Your task to perform on an android device: make emails show in primary in the gmail app Image 0: 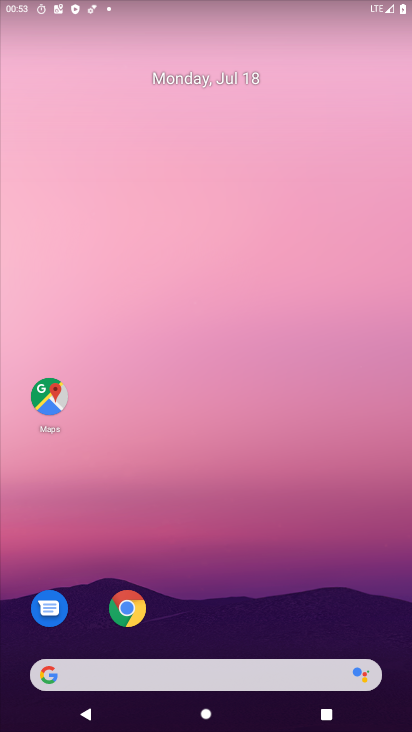
Step 0: drag from (282, 615) to (386, 25)
Your task to perform on an android device: make emails show in primary in the gmail app Image 1: 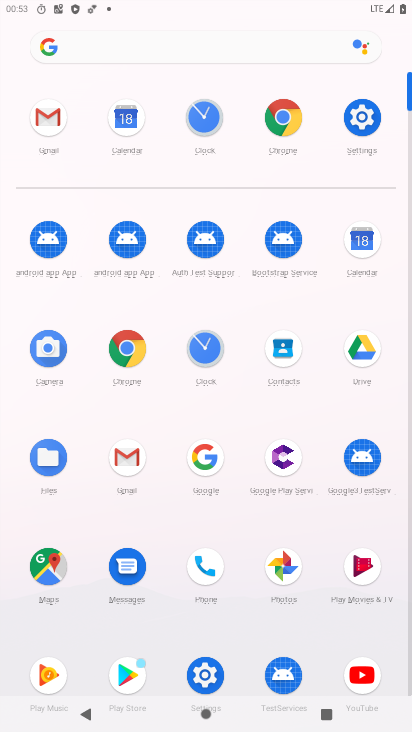
Step 1: click (50, 128)
Your task to perform on an android device: make emails show in primary in the gmail app Image 2: 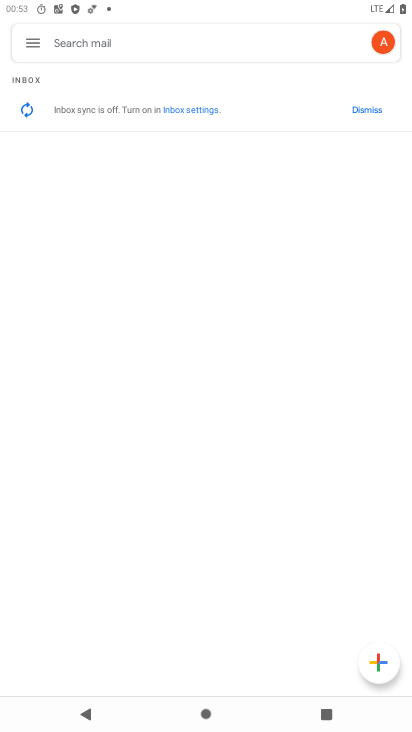
Step 2: click (33, 43)
Your task to perform on an android device: make emails show in primary in the gmail app Image 3: 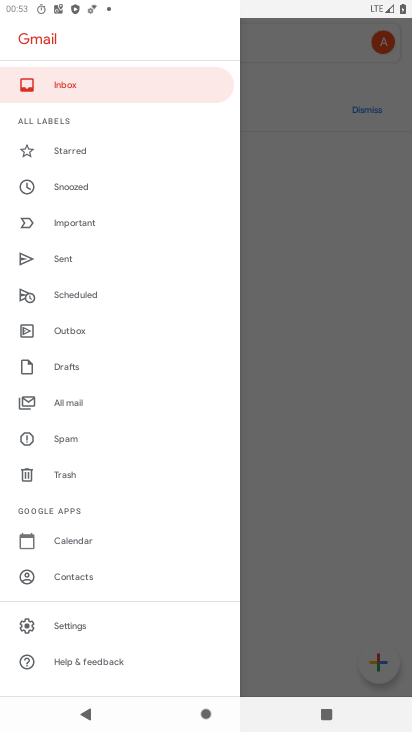
Step 3: click (83, 628)
Your task to perform on an android device: make emails show in primary in the gmail app Image 4: 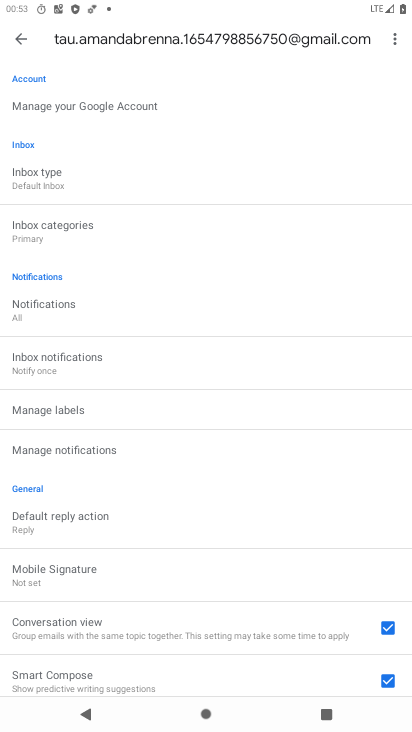
Step 4: click (15, 184)
Your task to perform on an android device: make emails show in primary in the gmail app Image 5: 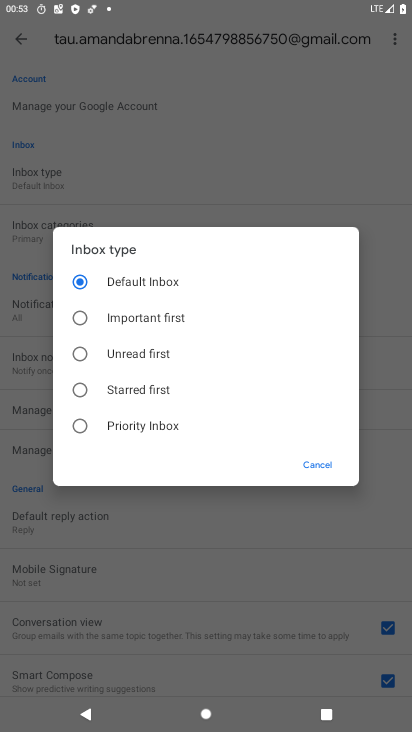
Step 5: click (155, 166)
Your task to perform on an android device: make emails show in primary in the gmail app Image 6: 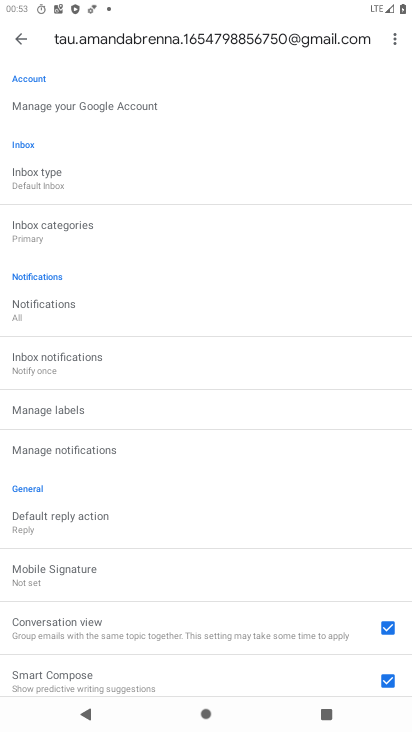
Step 6: task complete